Your task to perform on an android device: move an email to a new category in the gmail app Image 0: 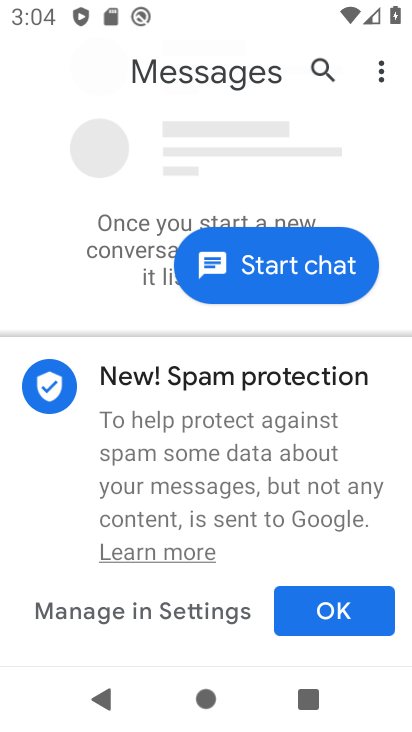
Step 0: press home button
Your task to perform on an android device: move an email to a new category in the gmail app Image 1: 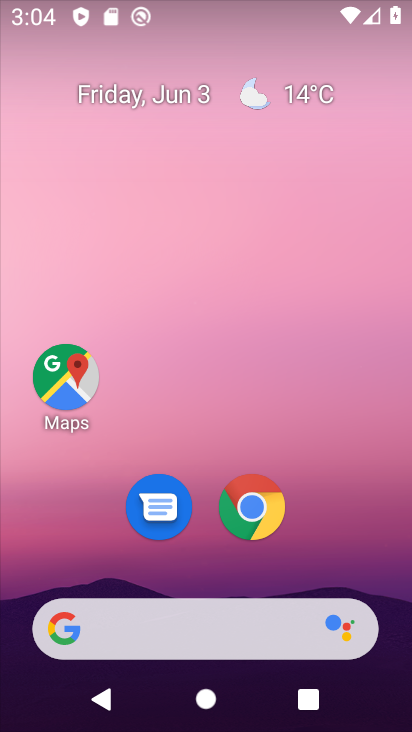
Step 1: drag from (174, 576) to (240, 191)
Your task to perform on an android device: move an email to a new category in the gmail app Image 2: 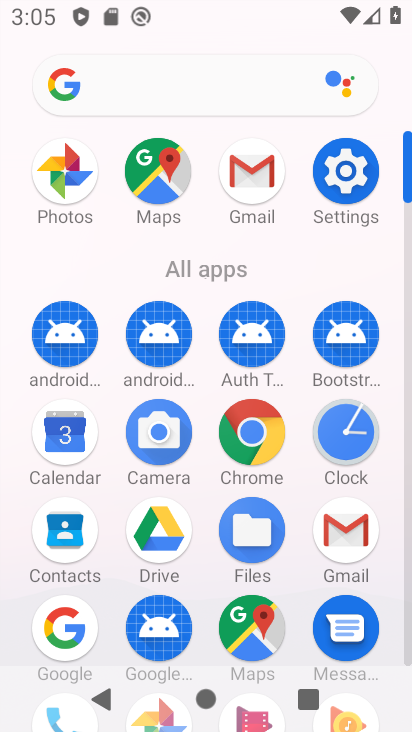
Step 2: click (337, 531)
Your task to perform on an android device: move an email to a new category in the gmail app Image 3: 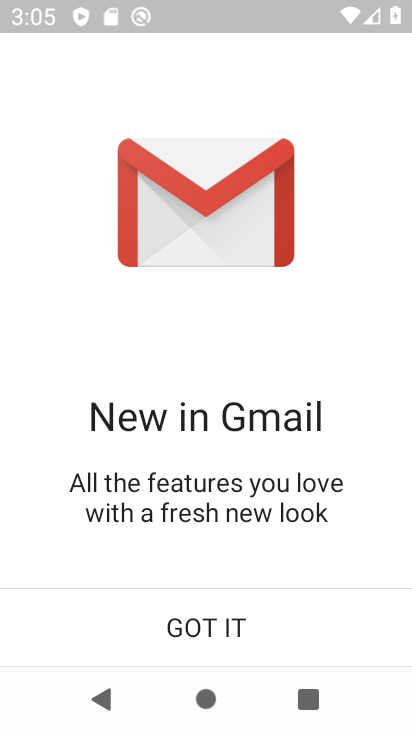
Step 3: click (193, 616)
Your task to perform on an android device: move an email to a new category in the gmail app Image 4: 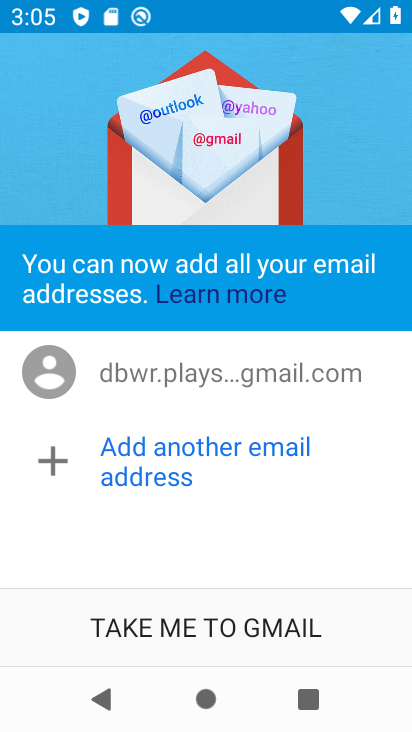
Step 4: click (194, 624)
Your task to perform on an android device: move an email to a new category in the gmail app Image 5: 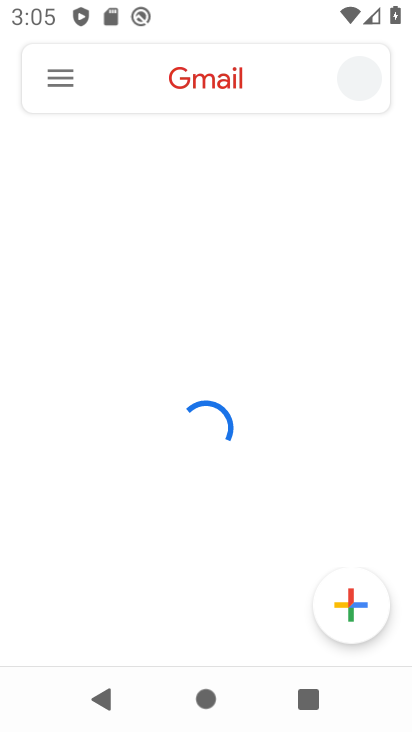
Step 5: click (52, 76)
Your task to perform on an android device: move an email to a new category in the gmail app Image 6: 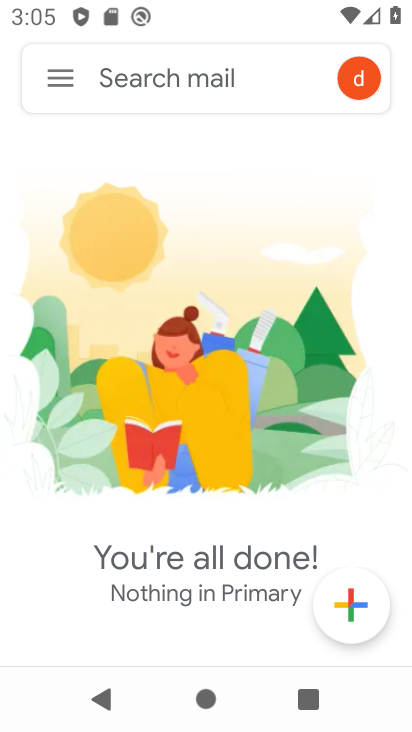
Step 6: click (59, 82)
Your task to perform on an android device: move an email to a new category in the gmail app Image 7: 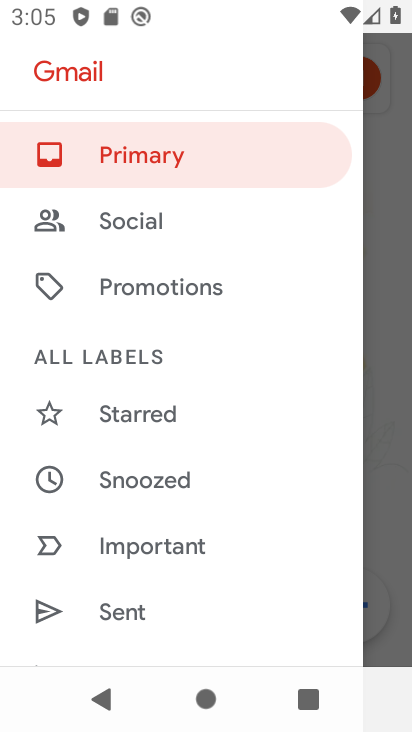
Step 7: drag from (184, 588) to (284, 185)
Your task to perform on an android device: move an email to a new category in the gmail app Image 8: 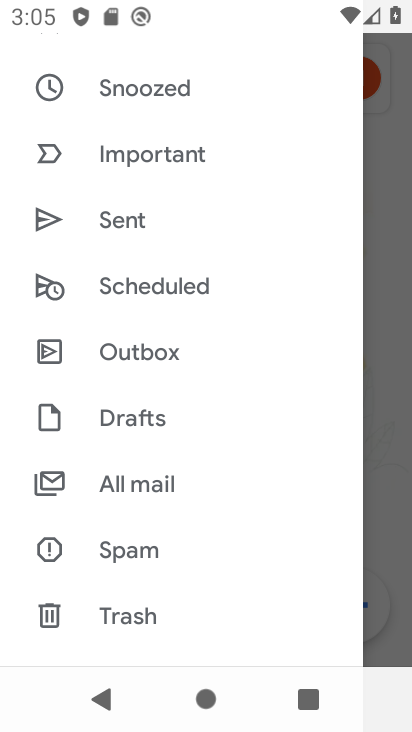
Step 8: click (160, 481)
Your task to perform on an android device: move an email to a new category in the gmail app Image 9: 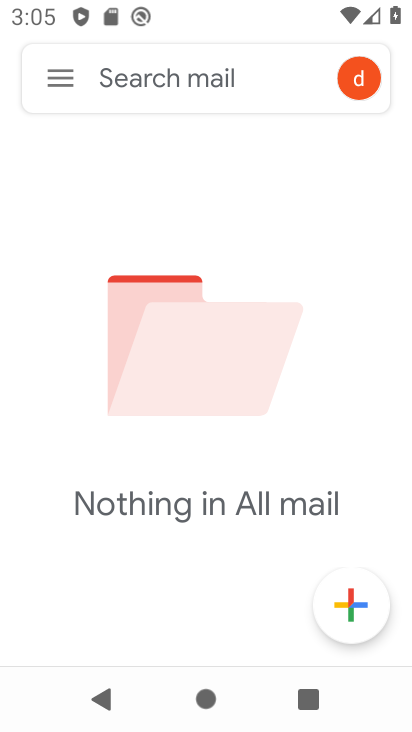
Step 9: task complete